Your task to perform on an android device: Open Chrome and go to settings Image 0: 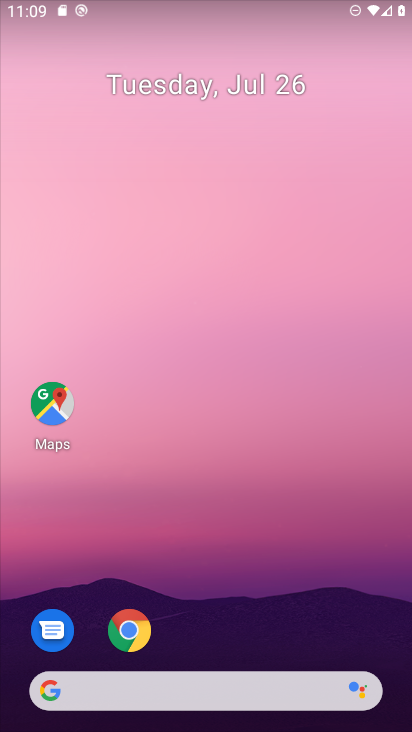
Step 0: click (125, 629)
Your task to perform on an android device: Open Chrome and go to settings Image 1: 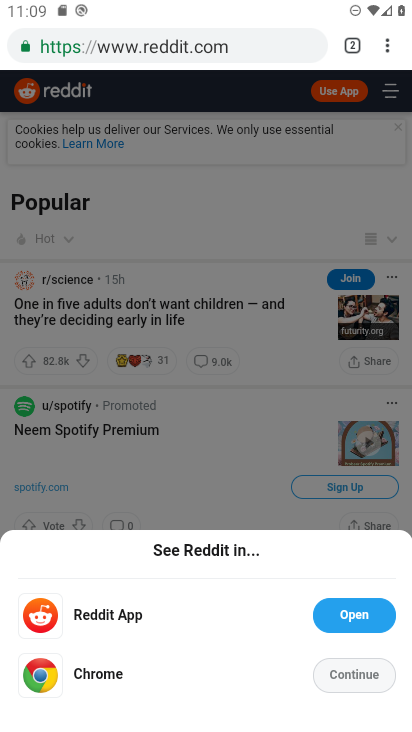
Step 1: click (386, 53)
Your task to perform on an android device: Open Chrome and go to settings Image 2: 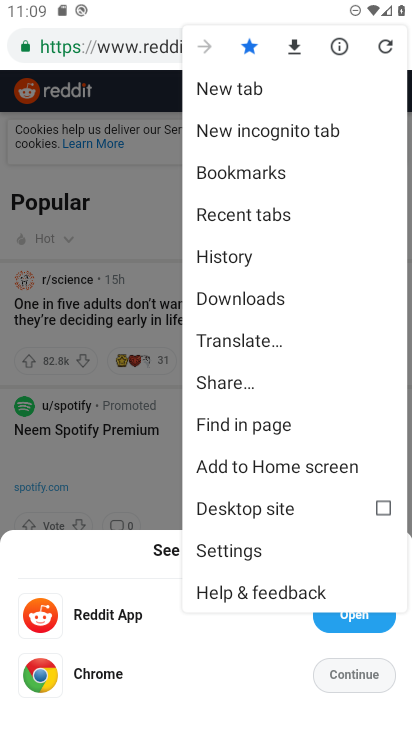
Step 2: click (235, 551)
Your task to perform on an android device: Open Chrome and go to settings Image 3: 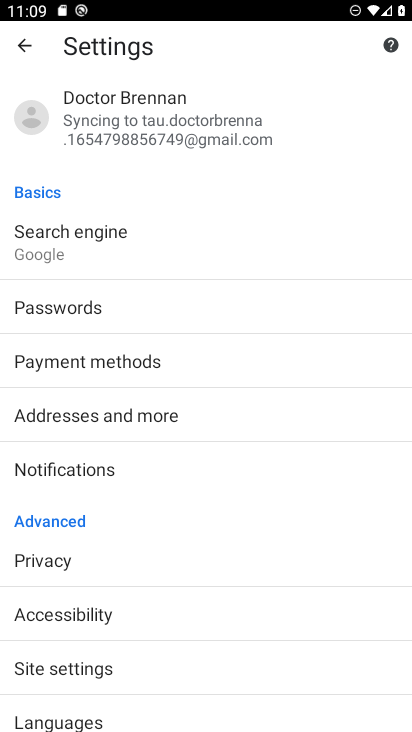
Step 3: task complete